Your task to perform on an android device: Toggle the flashlight Image 0: 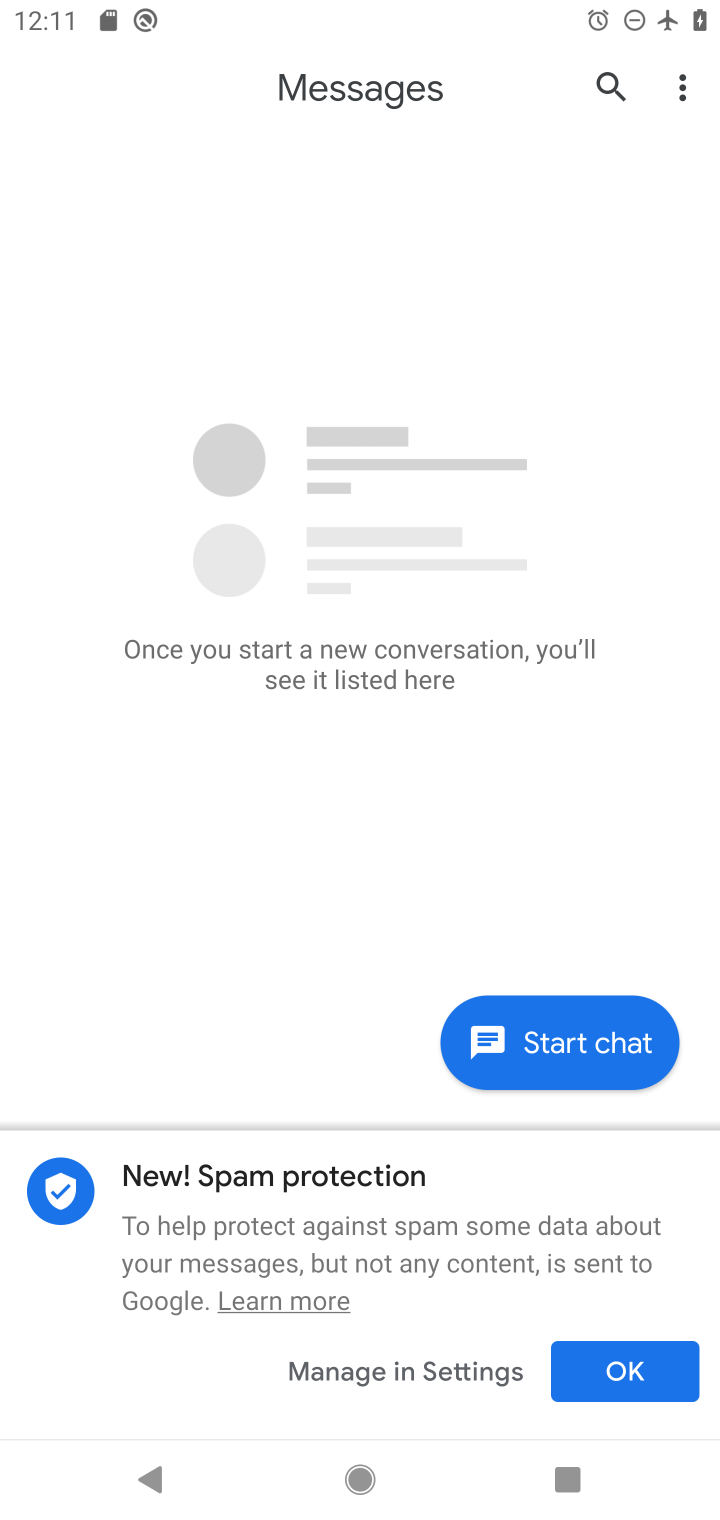
Step 0: press back button
Your task to perform on an android device: Toggle the flashlight Image 1: 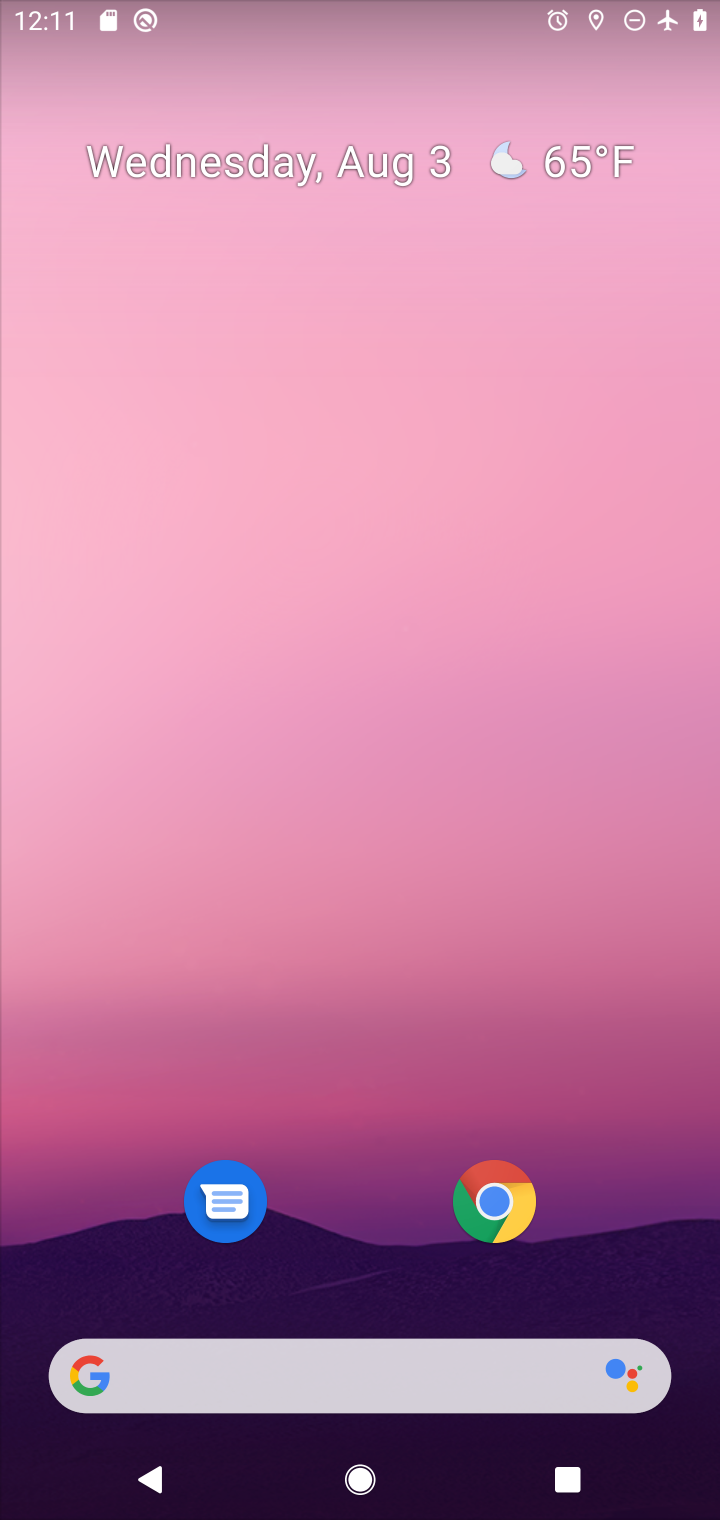
Step 1: drag from (416, 1281) to (301, 222)
Your task to perform on an android device: Toggle the flashlight Image 2: 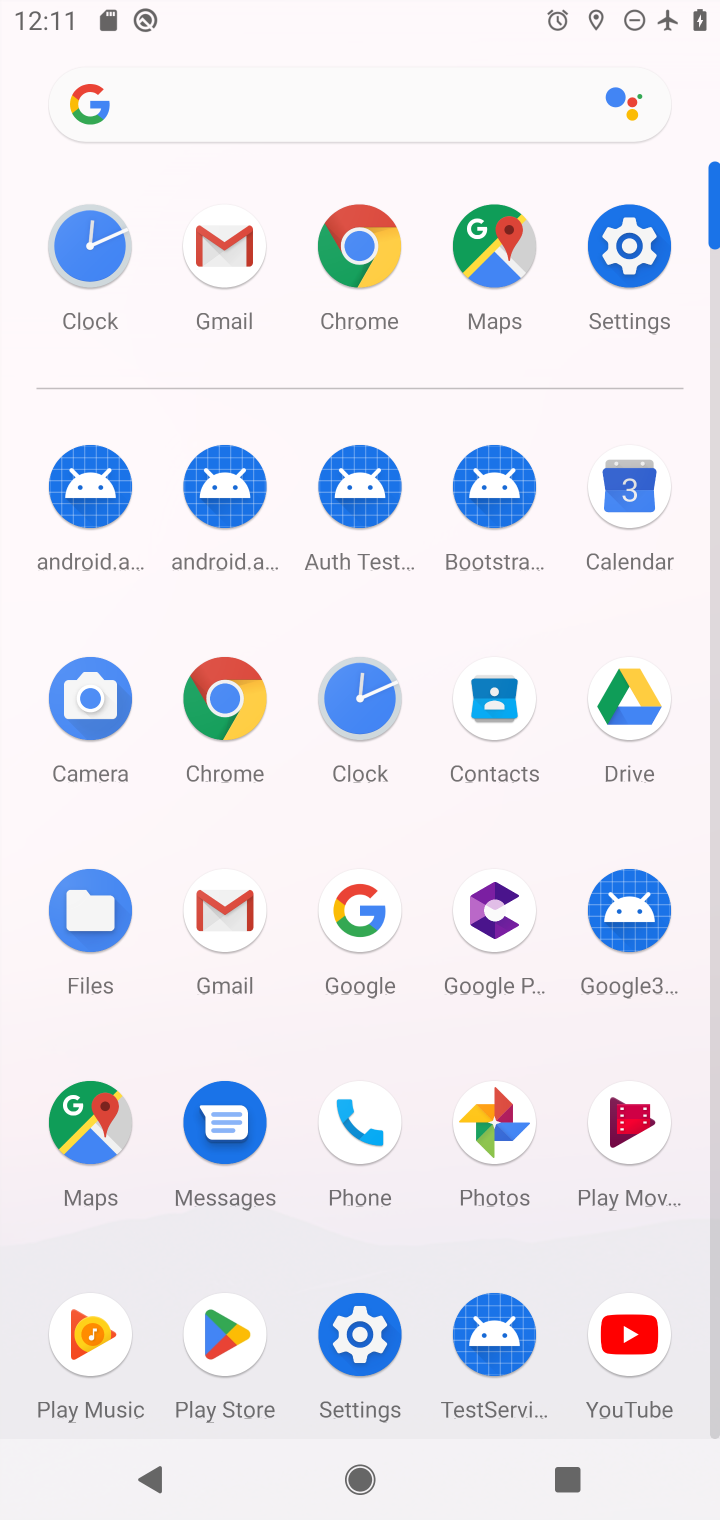
Step 2: click (359, 1361)
Your task to perform on an android device: Toggle the flashlight Image 3: 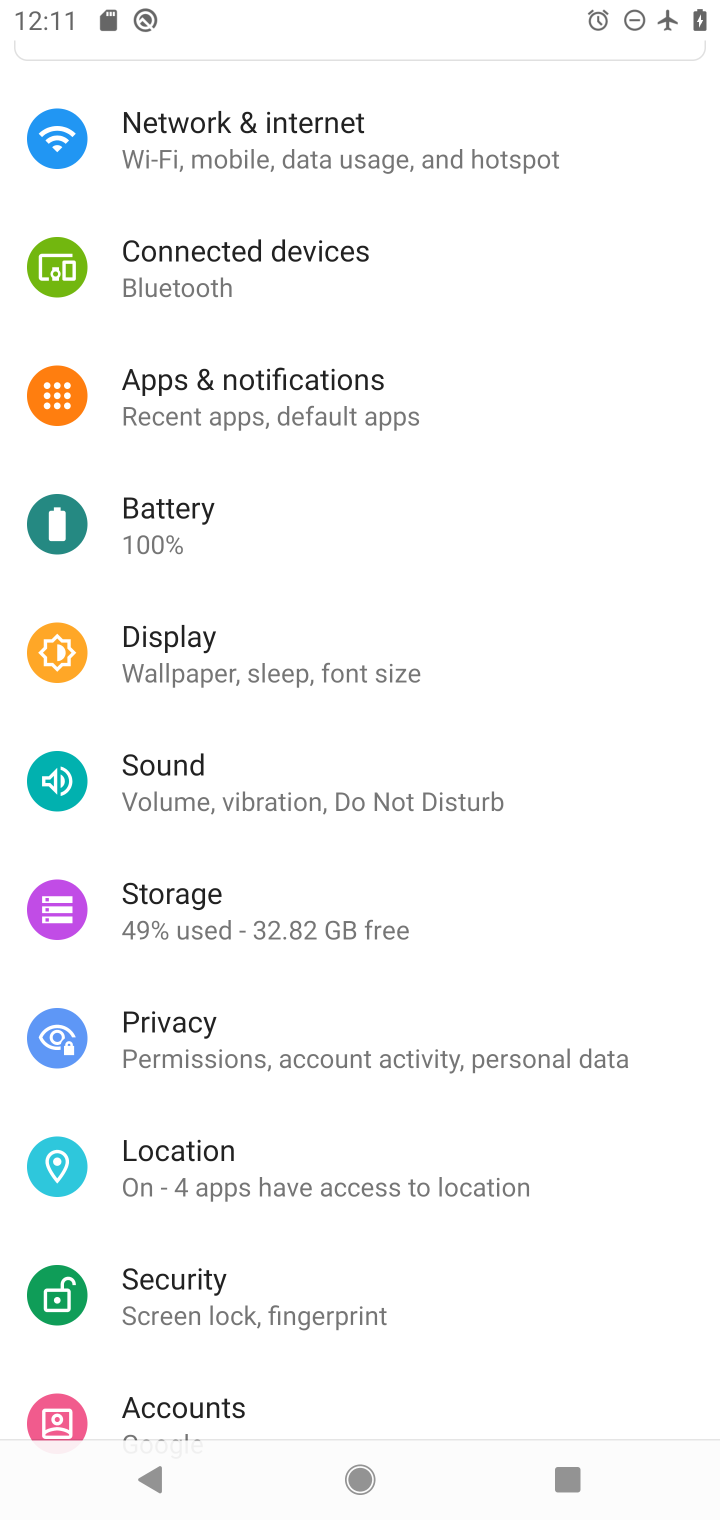
Step 3: task complete